Your task to perform on an android device: Open Android settings Image 0: 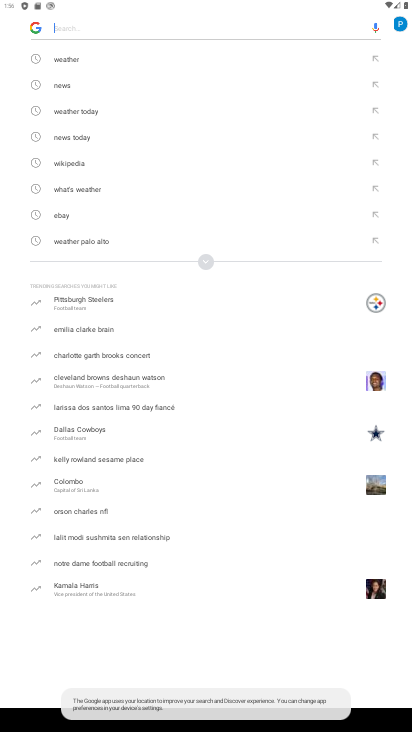
Step 0: drag from (236, 663) to (280, 197)
Your task to perform on an android device: Open Android settings Image 1: 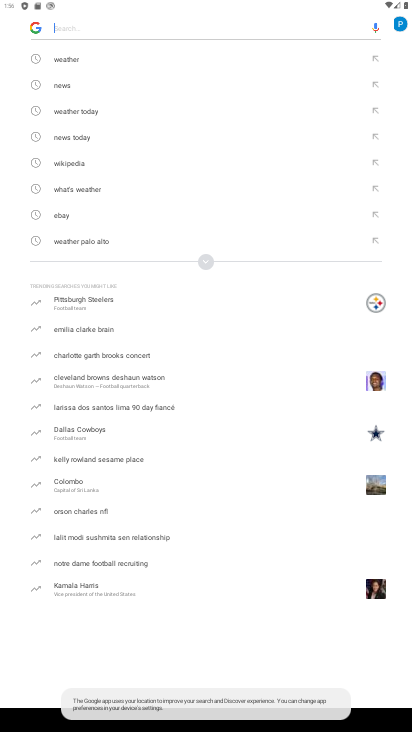
Step 1: press home button
Your task to perform on an android device: Open Android settings Image 2: 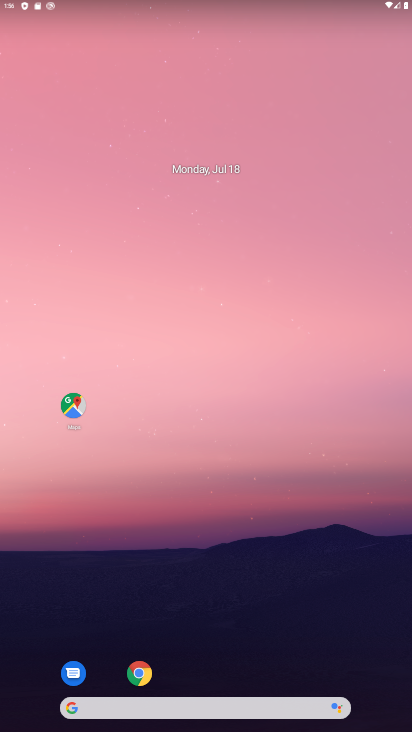
Step 2: click (127, 478)
Your task to perform on an android device: Open Android settings Image 3: 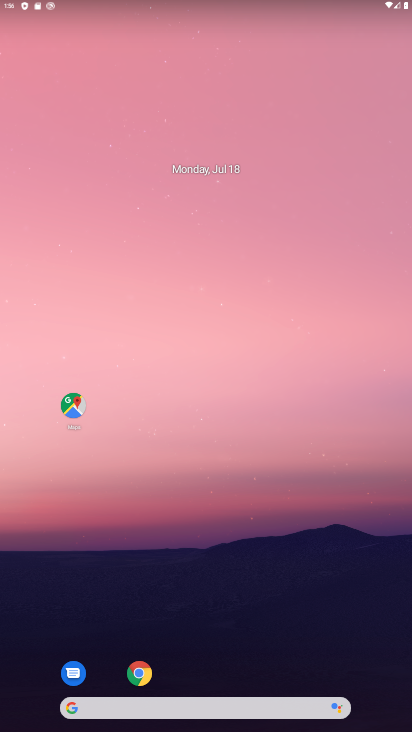
Step 3: drag from (188, 555) to (249, 94)
Your task to perform on an android device: Open Android settings Image 4: 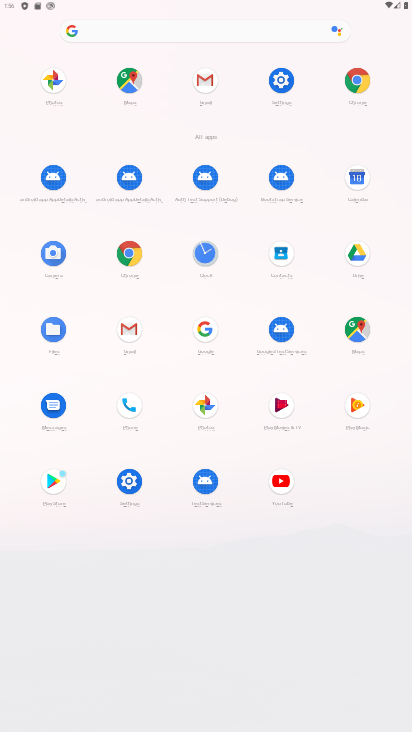
Step 4: task complete
Your task to perform on an android device: Open Android settings Image 5: 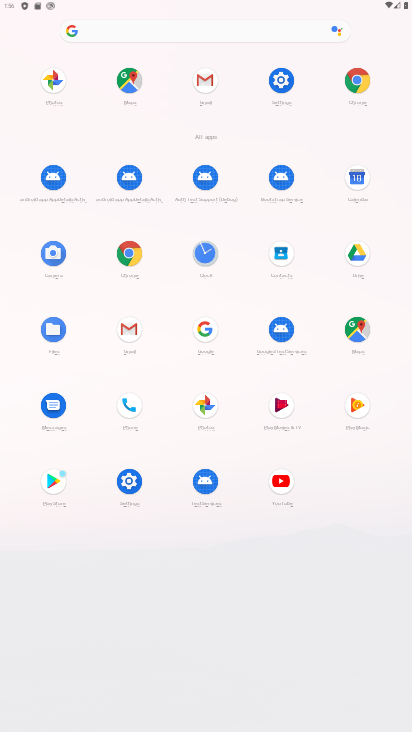
Step 5: click (131, 480)
Your task to perform on an android device: Open Android settings Image 6: 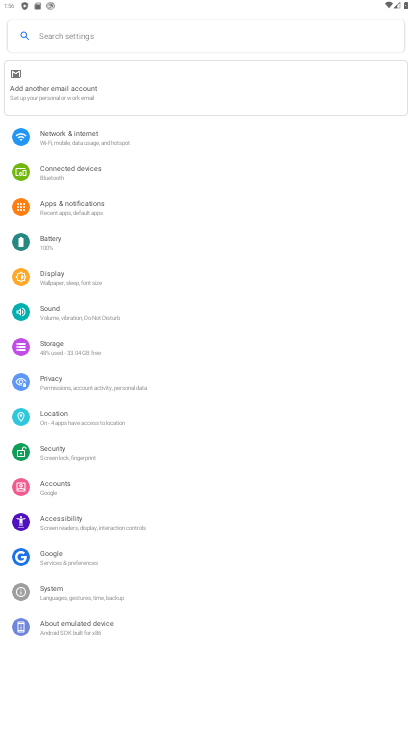
Step 6: task complete